Your task to perform on an android device: turn on the 24-hour format for clock Image 0: 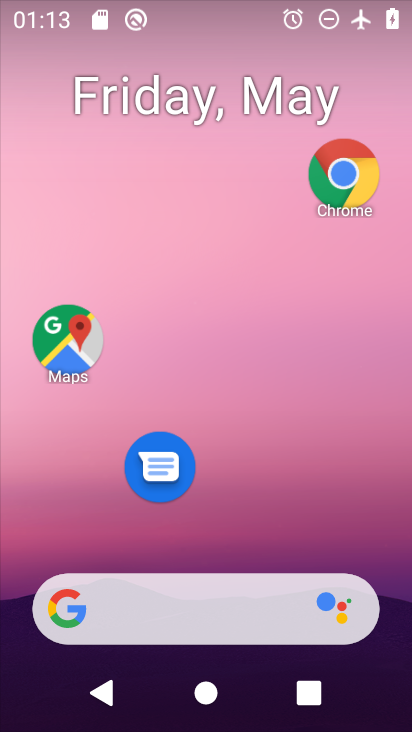
Step 0: drag from (259, 510) to (264, 299)
Your task to perform on an android device: turn on the 24-hour format for clock Image 1: 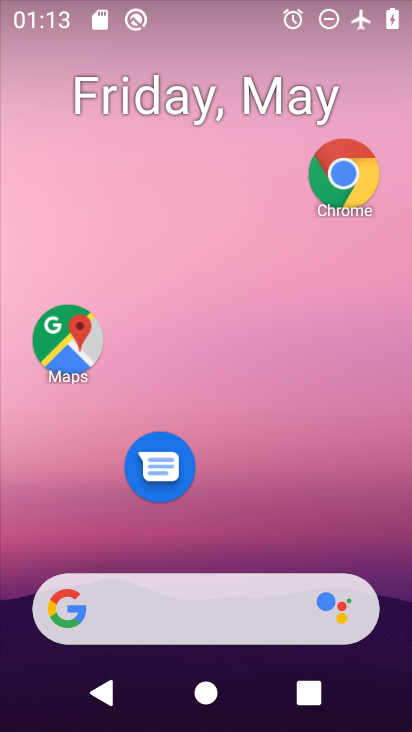
Step 1: drag from (283, 522) to (276, 327)
Your task to perform on an android device: turn on the 24-hour format for clock Image 2: 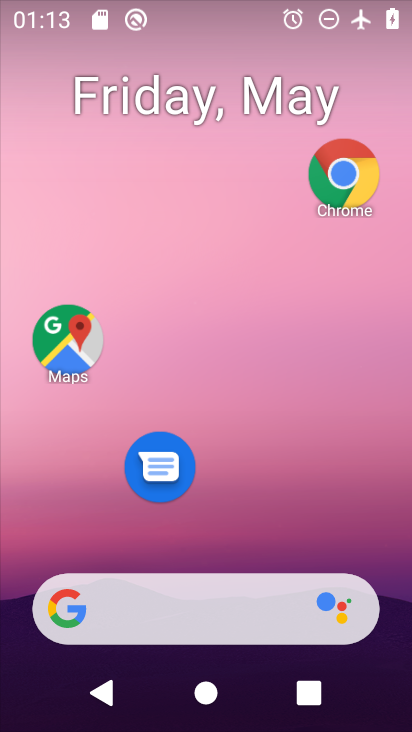
Step 2: drag from (297, 604) to (303, 318)
Your task to perform on an android device: turn on the 24-hour format for clock Image 3: 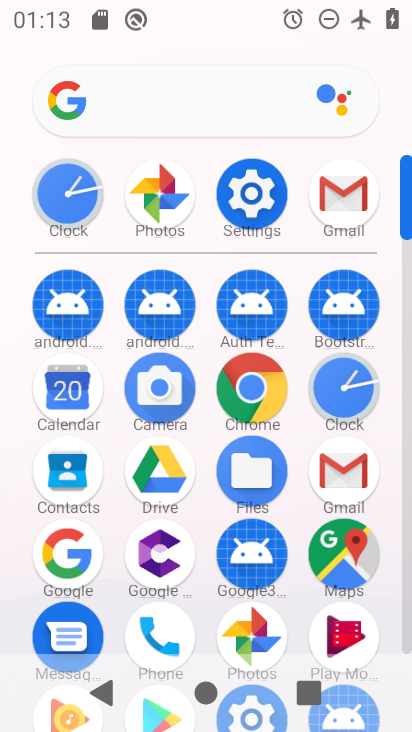
Step 3: click (345, 387)
Your task to perform on an android device: turn on the 24-hour format for clock Image 4: 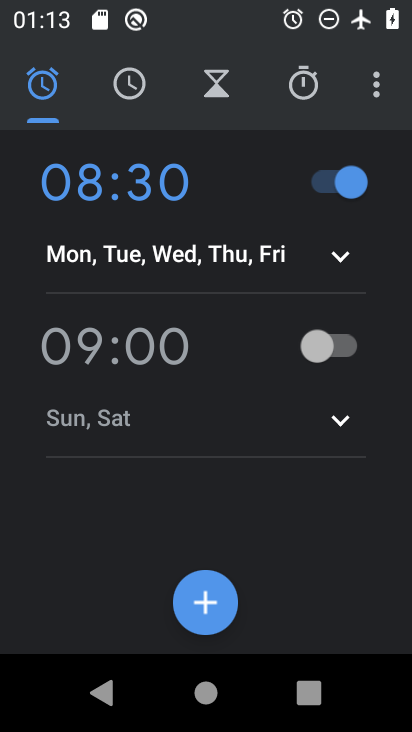
Step 4: click (382, 85)
Your task to perform on an android device: turn on the 24-hour format for clock Image 5: 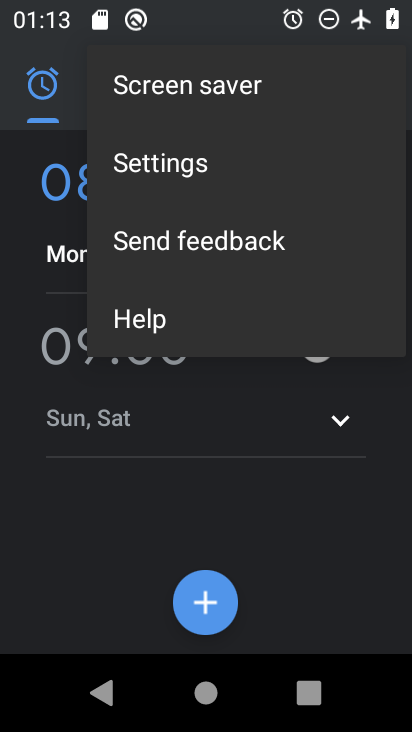
Step 5: click (184, 149)
Your task to perform on an android device: turn on the 24-hour format for clock Image 6: 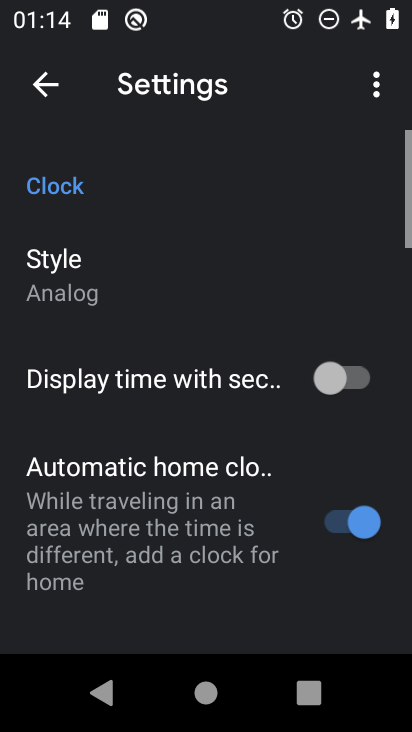
Step 6: drag from (169, 480) to (233, 129)
Your task to perform on an android device: turn on the 24-hour format for clock Image 7: 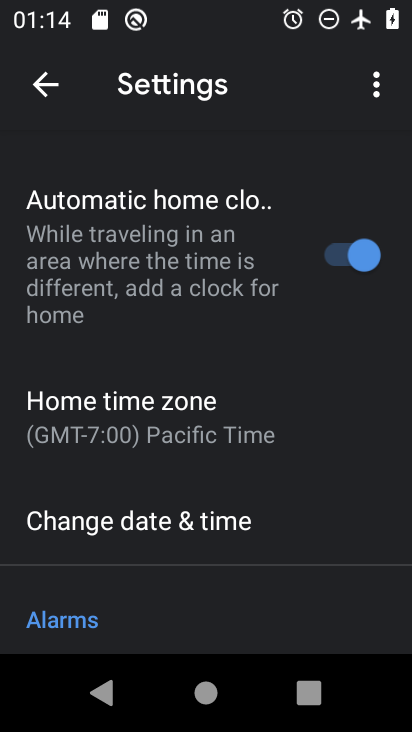
Step 7: click (162, 514)
Your task to perform on an android device: turn on the 24-hour format for clock Image 8: 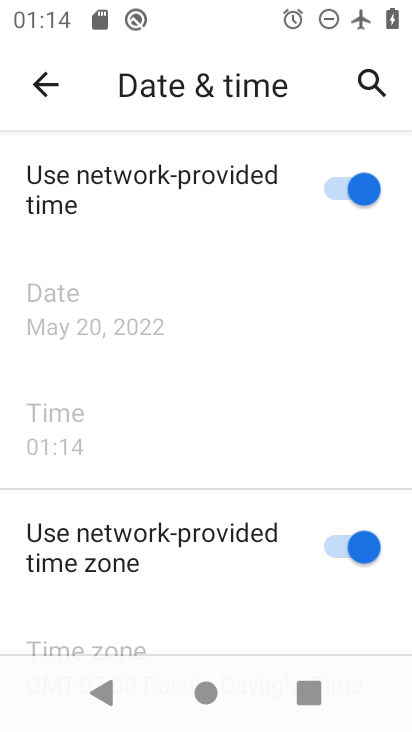
Step 8: task complete